Your task to perform on an android device: empty trash in the gmail app Image 0: 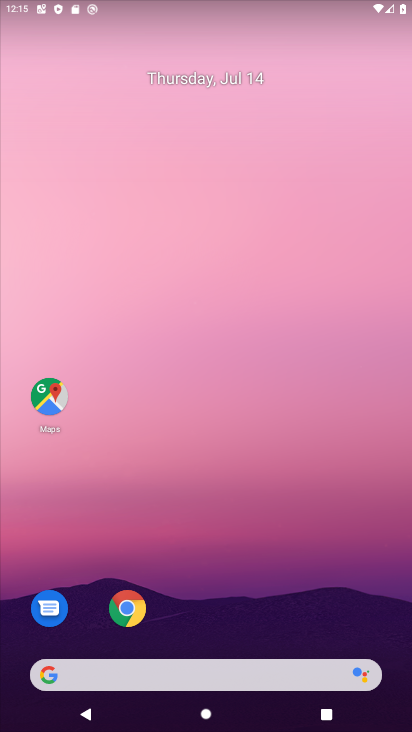
Step 0: drag from (21, 612) to (233, 262)
Your task to perform on an android device: empty trash in the gmail app Image 1: 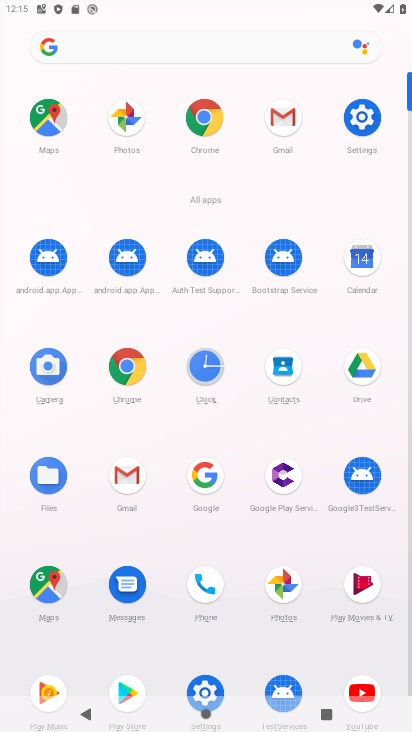
Step 1: click (283, 119)
Your task to perform on an android device: empty trash in the gmail app Image 2: 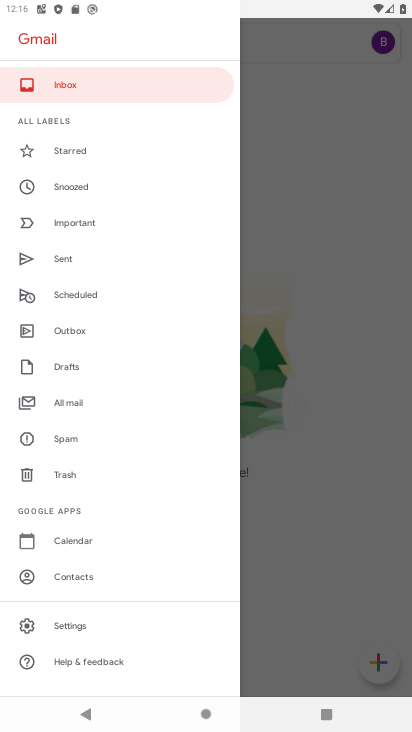
Step 2: click (88, 470)
Your task to perform on an android device: empty trash in the gmail app Image 3: 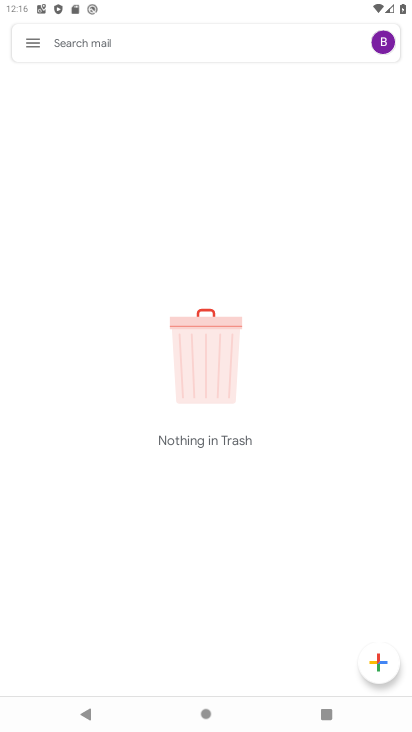
Step 3: click (291, 381)
Your task to perform on an android device: empty trash in the gmail app Image 4: 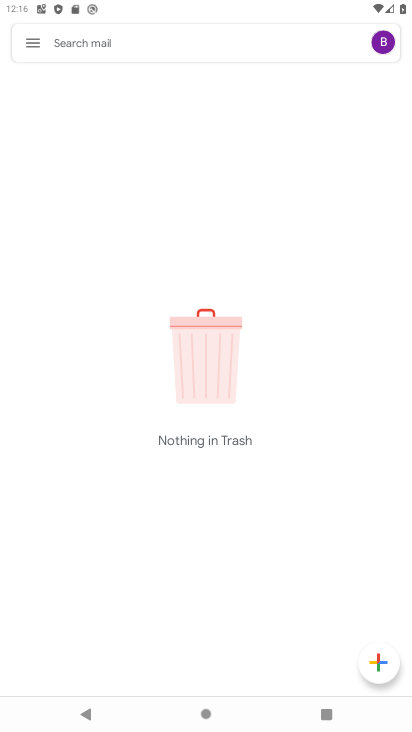
Step 4: task complete